Your task to perform on an android device: Open the phone app and click the voicemail tab. Image 0: 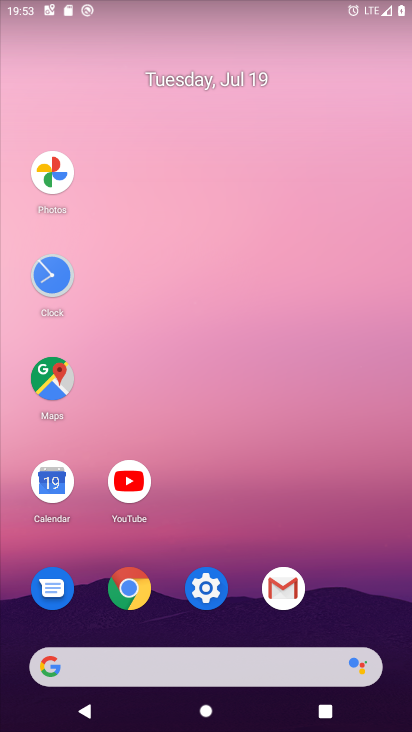
Step 0: drag from (348, 579) to (242, 26)
Your task to perform on an android device: Open the phone app and click the voicemail tab. Image 1: 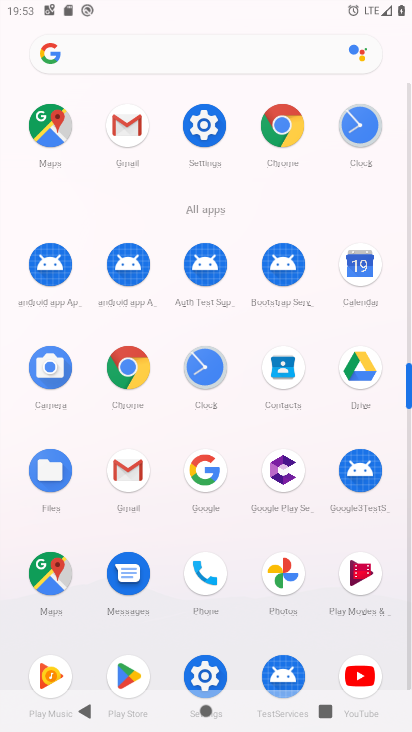
Step 1: click (205, 576)
Your task to perform on an android device: Open the phone app and click the voicemail tab. Image 2: 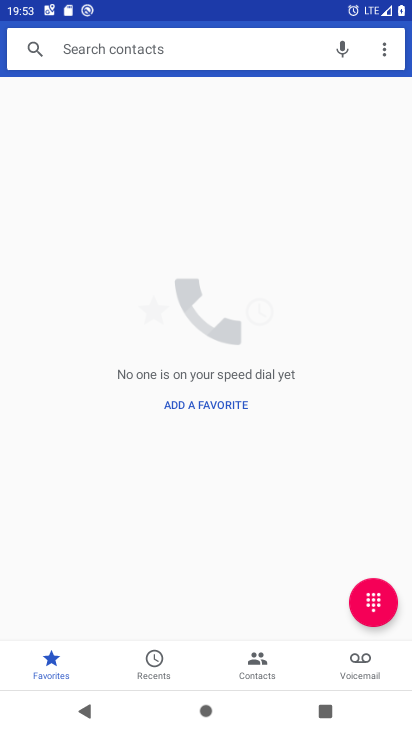
Step 2: click (351, 658)
Your task to perform on an android device: Open the phone app and click the voicemail tab. Image 3: 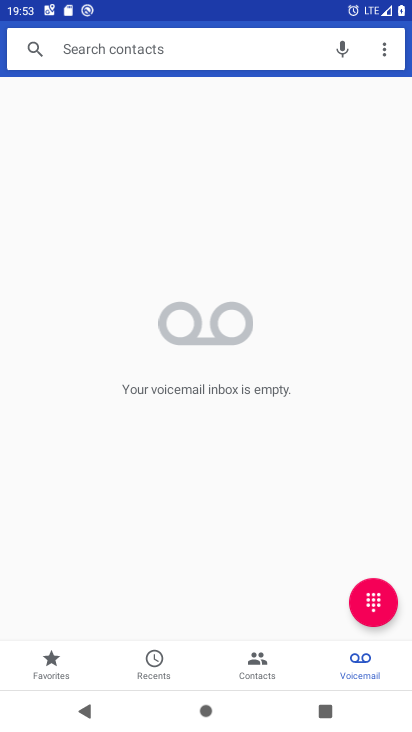
Step 3: task complete